Your task to perform on an android device: toggle translation in the chrome app Image 0: 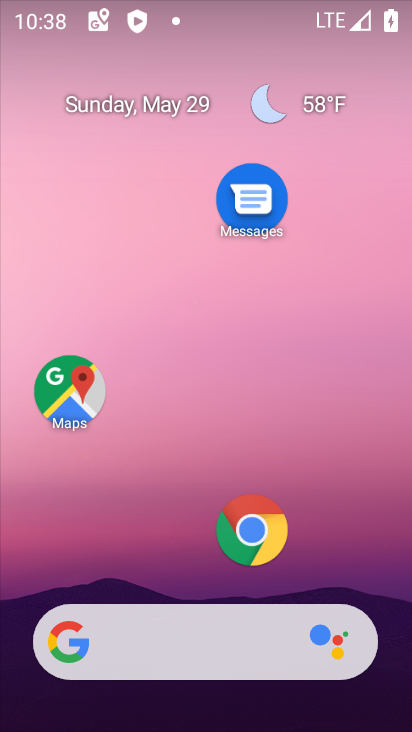
Step 0: drag from (172, 569) to (178, 88)
Your task to perform on an android device: toggle translation in the chrome app Image 1: 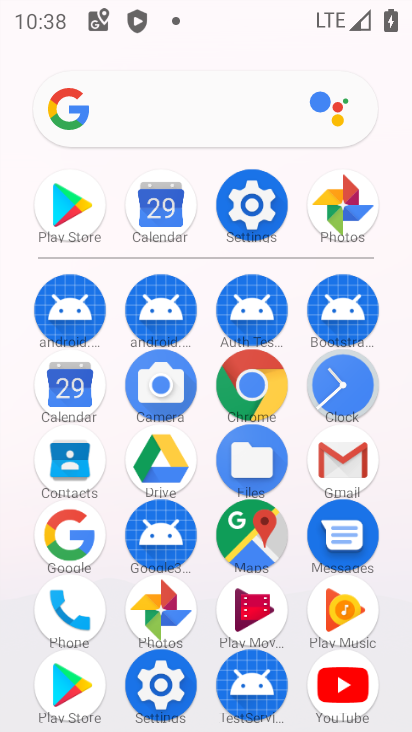
Step 1: click (243, 380)
Your task to perform on an android device: toggle translation in the chrome app Image 2: 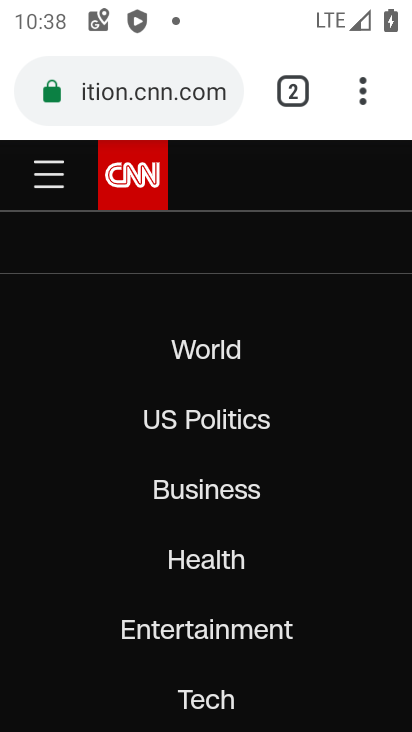
Step 2: click (360, 80)
Your task to perform on an android device: toggle translation in the chrome app Image 3: 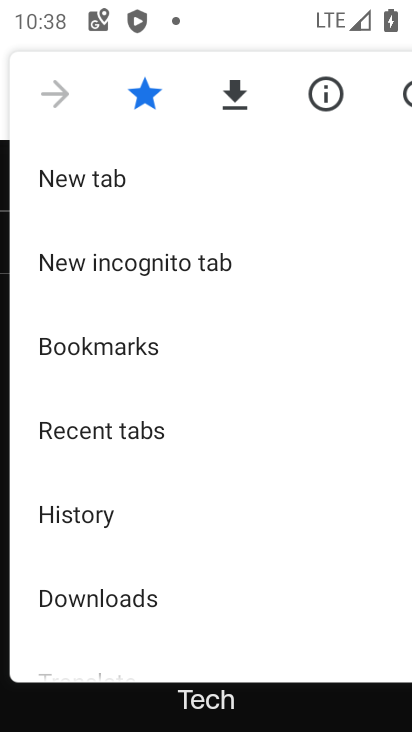
Step 3: drag from (128, 512) to (153, 265)
Your task to perform on an android device: toggle translation in the chrome app Image 4: 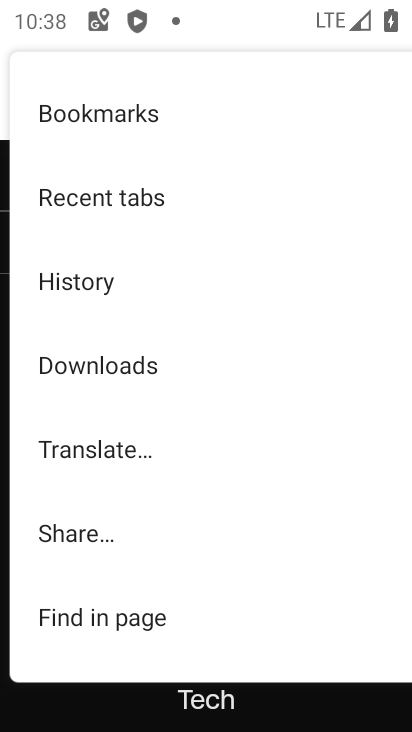
Step 4: drag from (95, 603) to (147, 267)
Your task to perform on an android device: toggle translation in the chrome app Image 5: 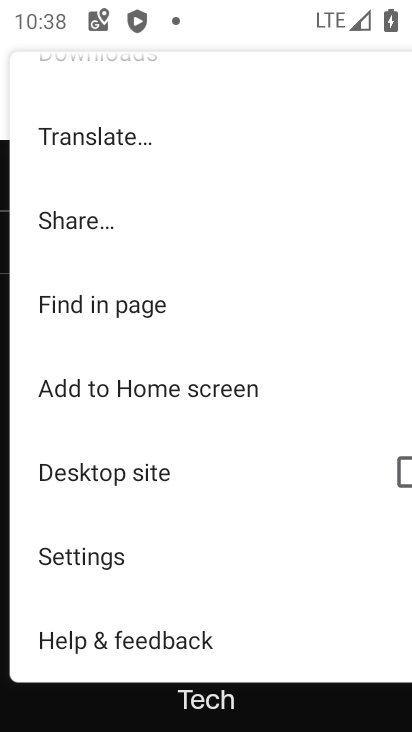
Step 5: click (117, 555)
Your task to perform on an android device: toggle translation in the chrome app Image 6: 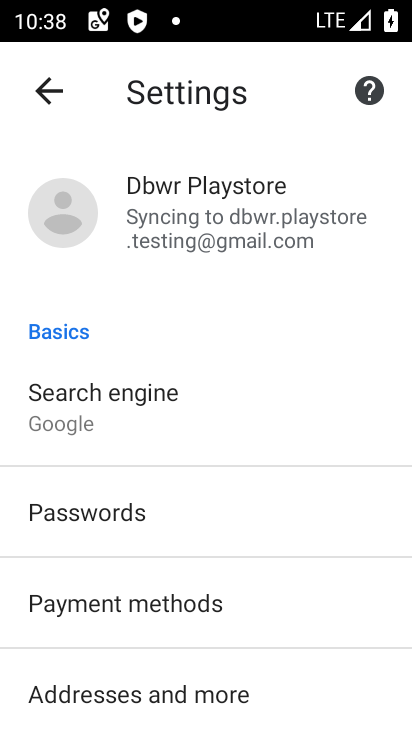
Step 6: drag from (156, 629) to (204, 353)
Your task to perform on an android device: toggle translation in the chrome app Image 7: 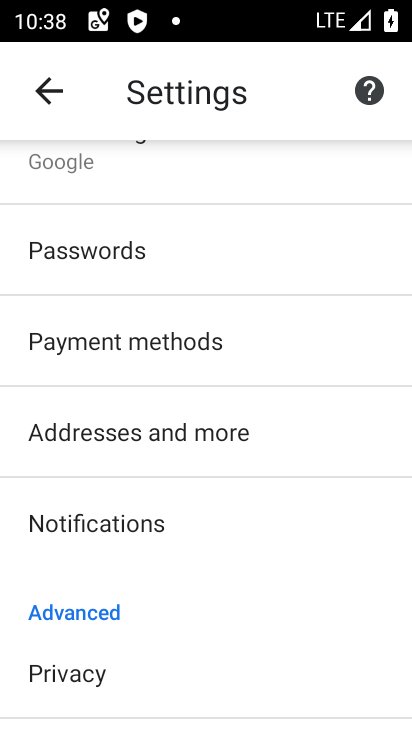
Step 7: drag from (197, 625) to (229, 251)
Your task to perform on an android device: toggle translation in the chrome app Image 8: 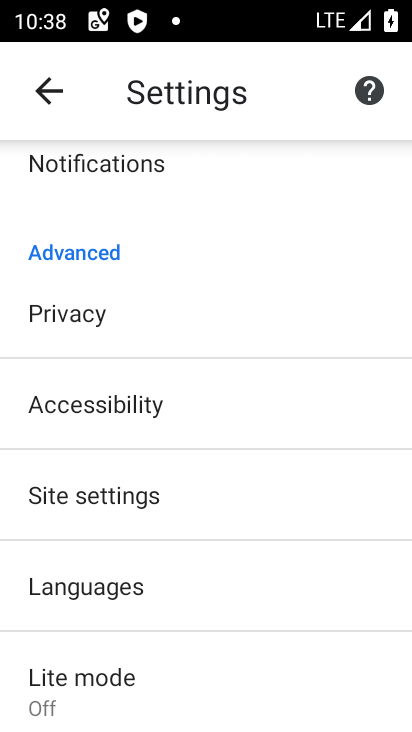
Step 8: drag from (135, 555) to (156, 349)
Your task to perform on an android device: toggle translation in the chrome app Image 9: 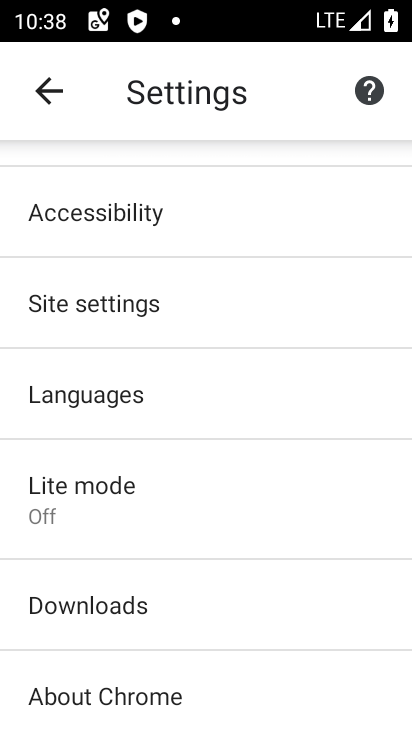
Step 9: click (112, 492)
Your task to perform on an android device: toggle translation in the chrome app Image 10: 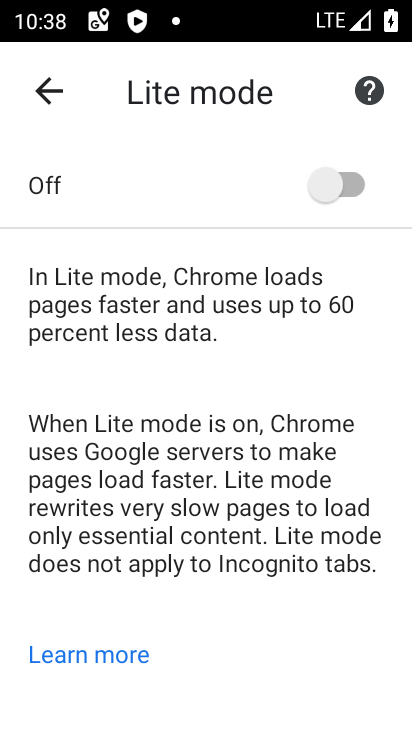
Step 10: click (53, 91)
Your task to perform on an android device: toggle translation in the chrome app Image 11: 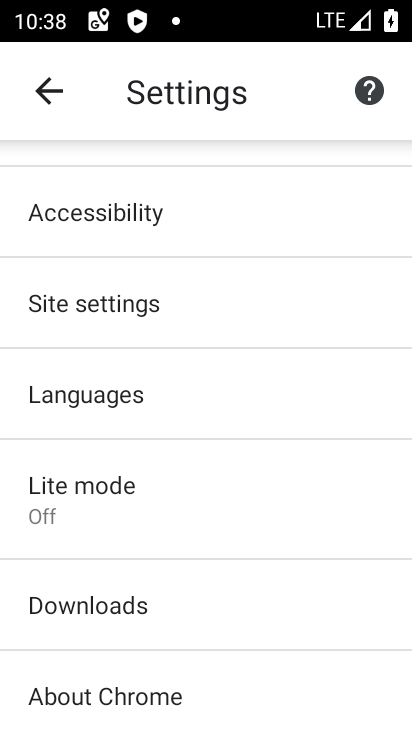
Step 11: click (140, 406)
Your task to perform on an android device: toggle translation in the chrome app Image 12: 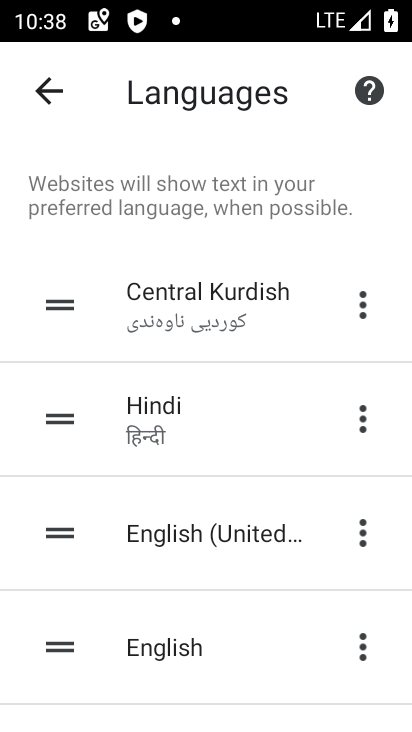
Step 12: drag from (291, 625) to (307, 242)
Your task to perform on an android device: toggle translation in the chrome app Image 13: 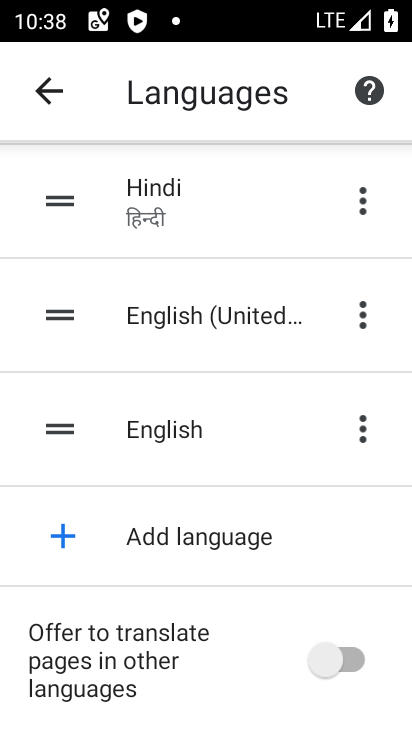
Step 13: click (341, 657)
Your task to perform on an android device: toggle translation in the chrome app Image 14: 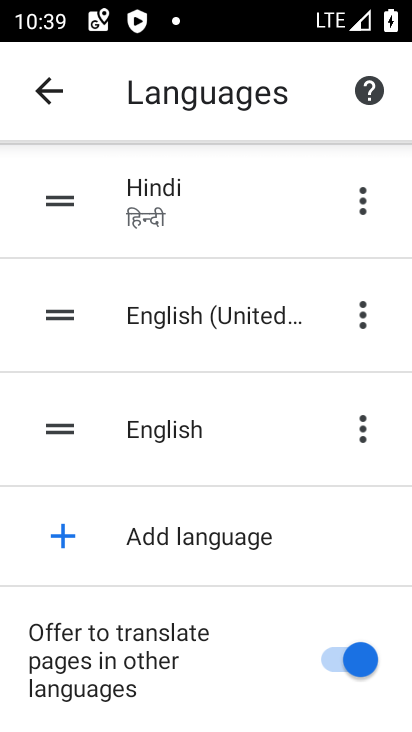
Step 14: task complete